Your task to perform on an android device: Toggle the flashlight Image 0: 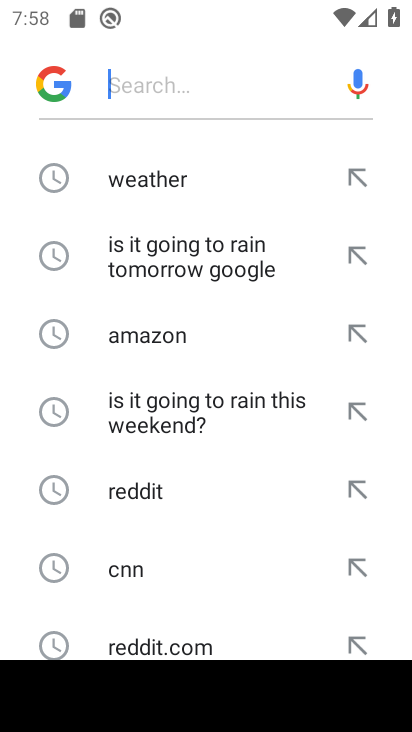
Step 0: press home button
Your task to perform on an android device: Toggle the flashlight Image 1: 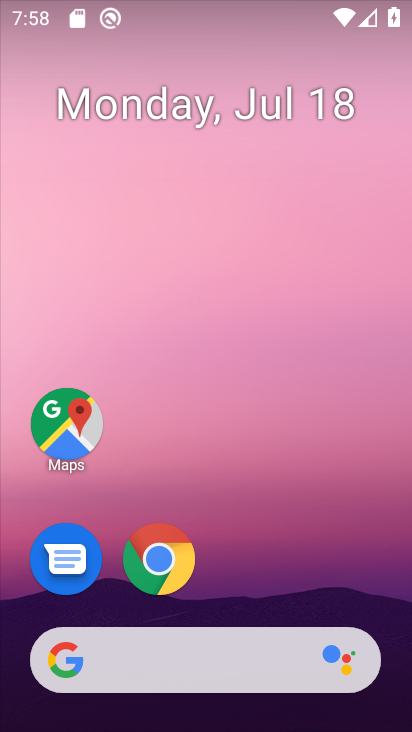
Step 1: drag from (184, 7) to (221, 368)
Your task to perform on an android device: Toggle the flashlight Image 2: 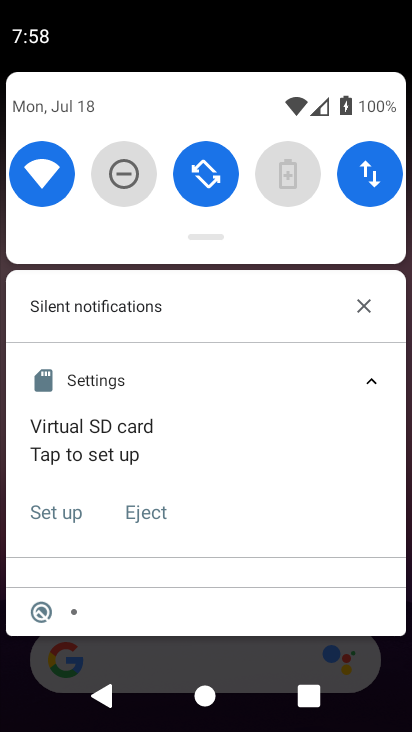
Step 2: drag from (243, 111) to (267, 389)
Your task to perform on an android device: Toggle the flashlight Image 3: 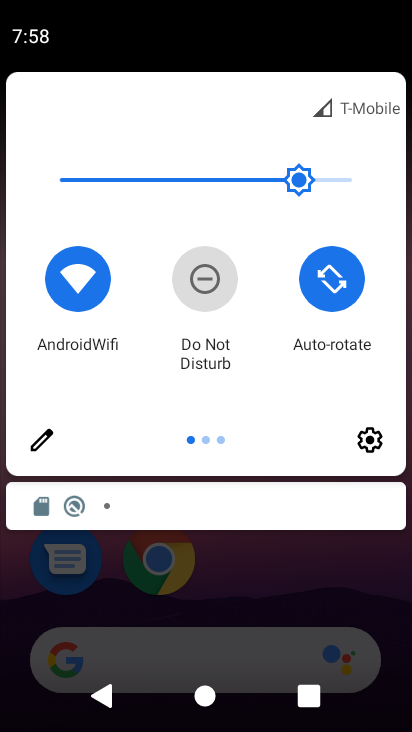
Step 3: click (56, 446)
Your task to perform on an android device: Toggle the flashlight Image 4: 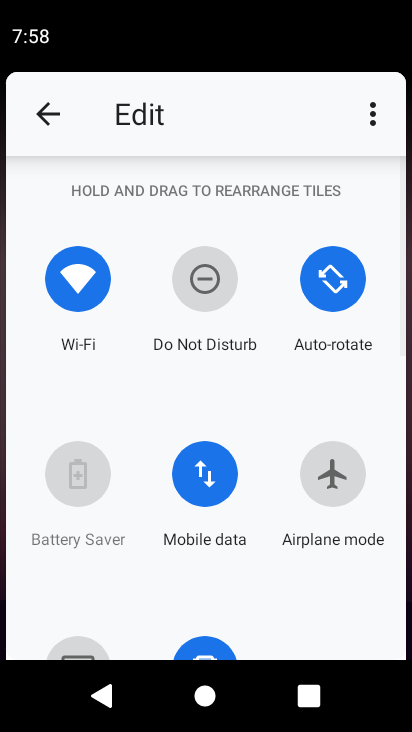
Step 4: task complete